Your task to perform on an android device: turn on showing notifications on the lock screen Image 0: 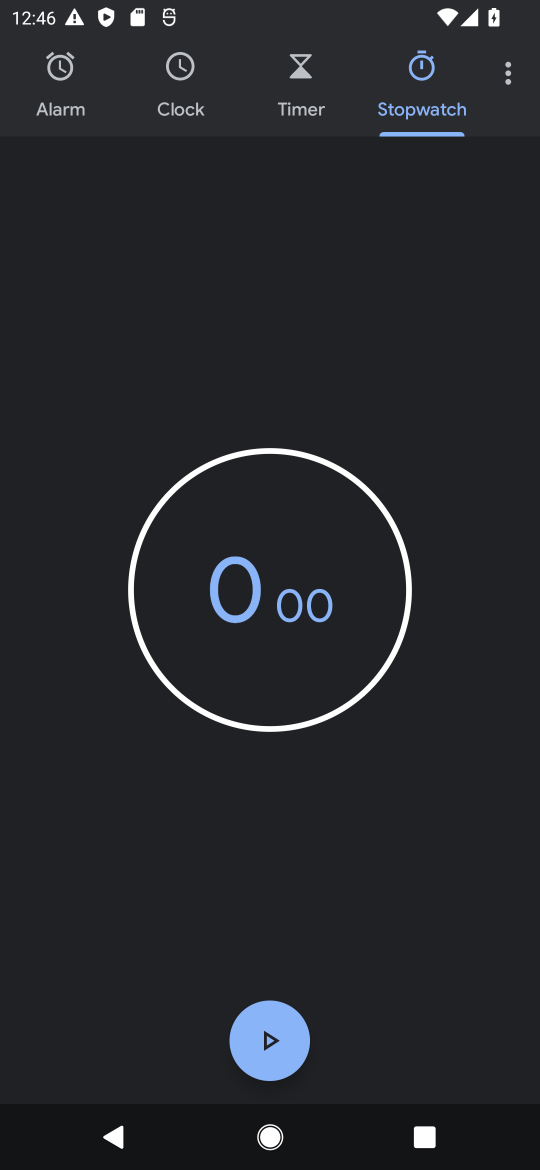
Step 0: press back button
Your task to perform on an android device: turn on showing notifications on the lock screen Image 1: 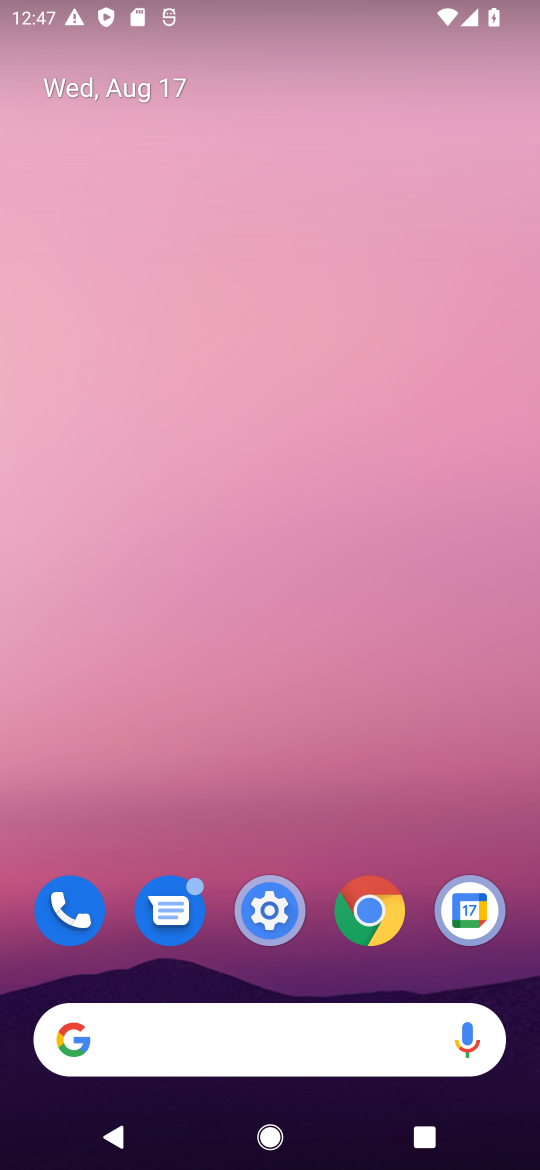
Step 1: click (258, 903)
Your task to perform on an android device: turn on showing notifications on the lock screen Image 2: 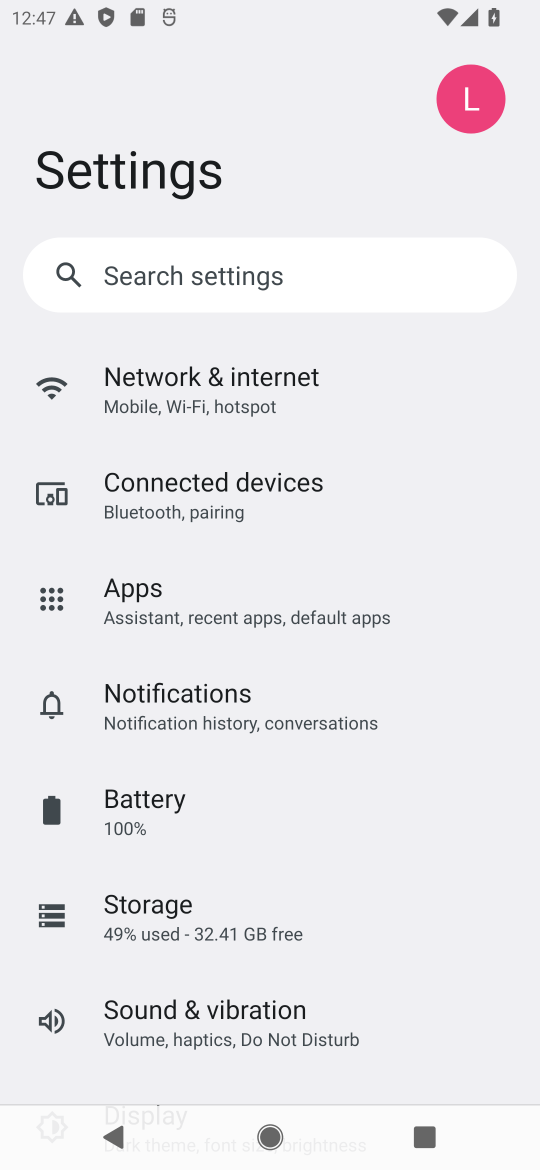
Step 2: click (243, 688)
Your task to perform on an android device: turn on showing notifications on the lock screen Image 3: 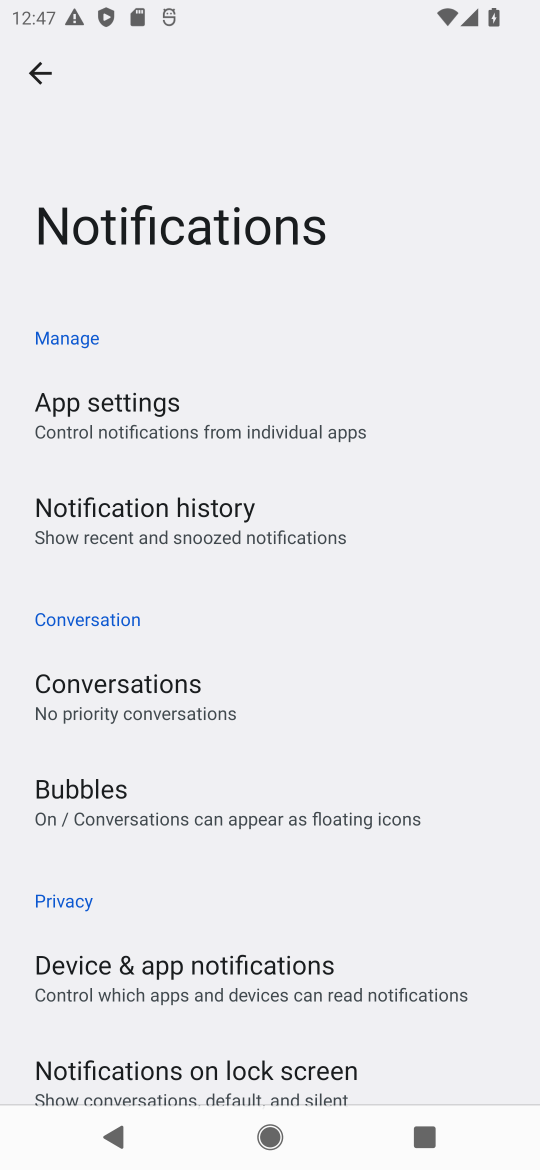
Step 3: click (201, 1073)
Your task to perform on an android device: turn on showing notifications on the lock screen Image 4: 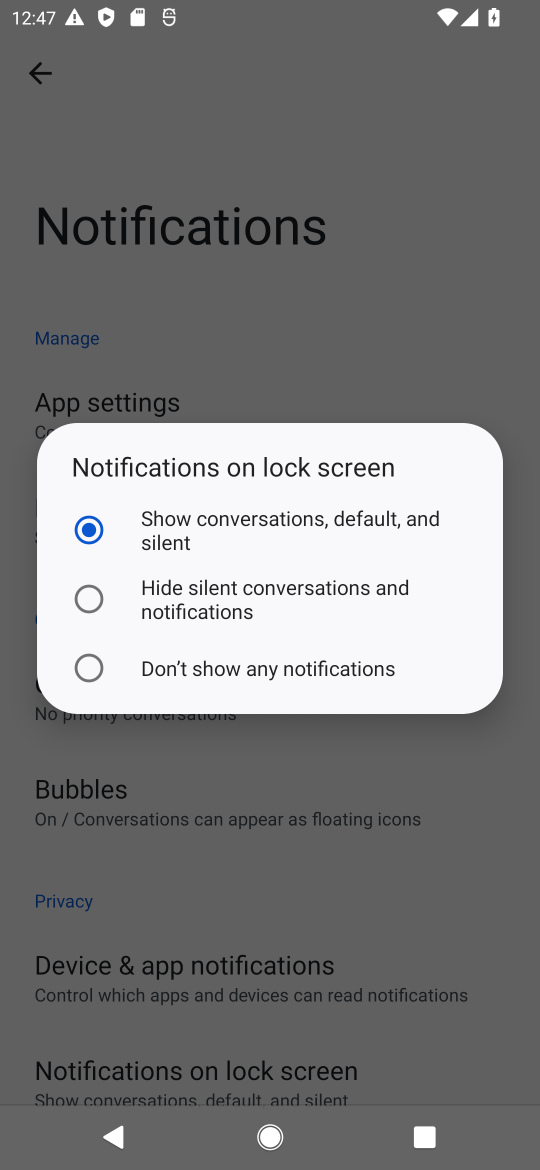
Step 4: click (176, 530)
Your task to perform on an android device: turn on showing notifications on the lock screen Image 5: 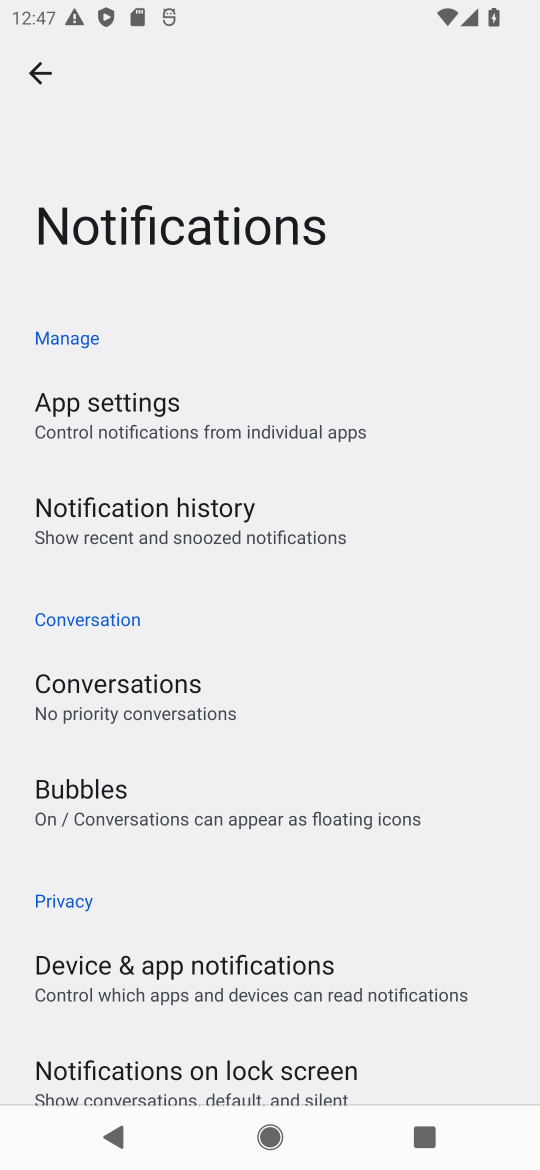
Step 5: task complete